Your task to perform on an android device: Open CNN.com Image 0: 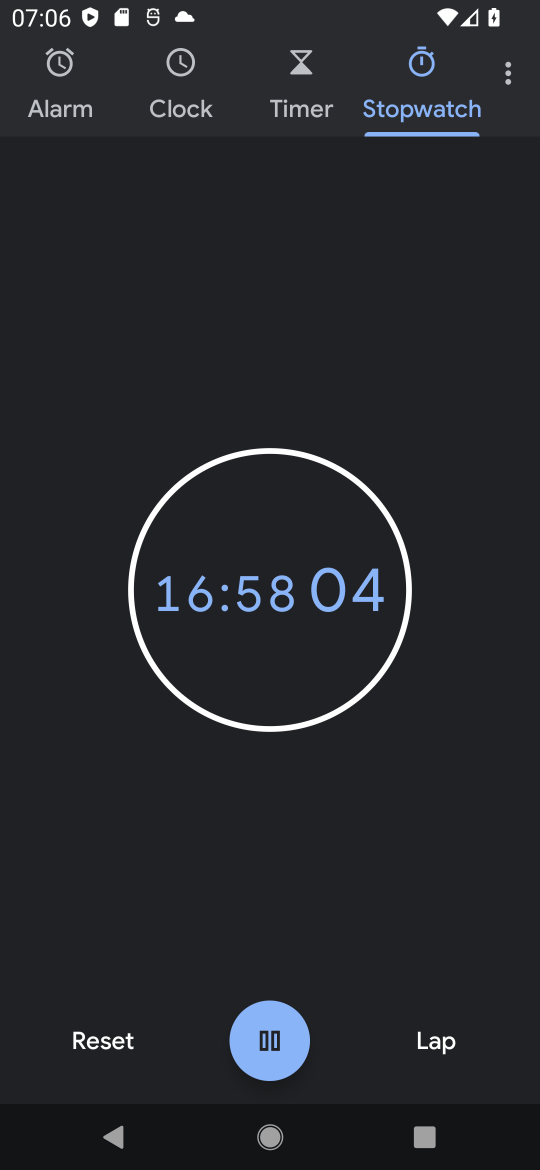
Step 0: press home button
Your task to perform on an android device: Open CNN.com Image 1: 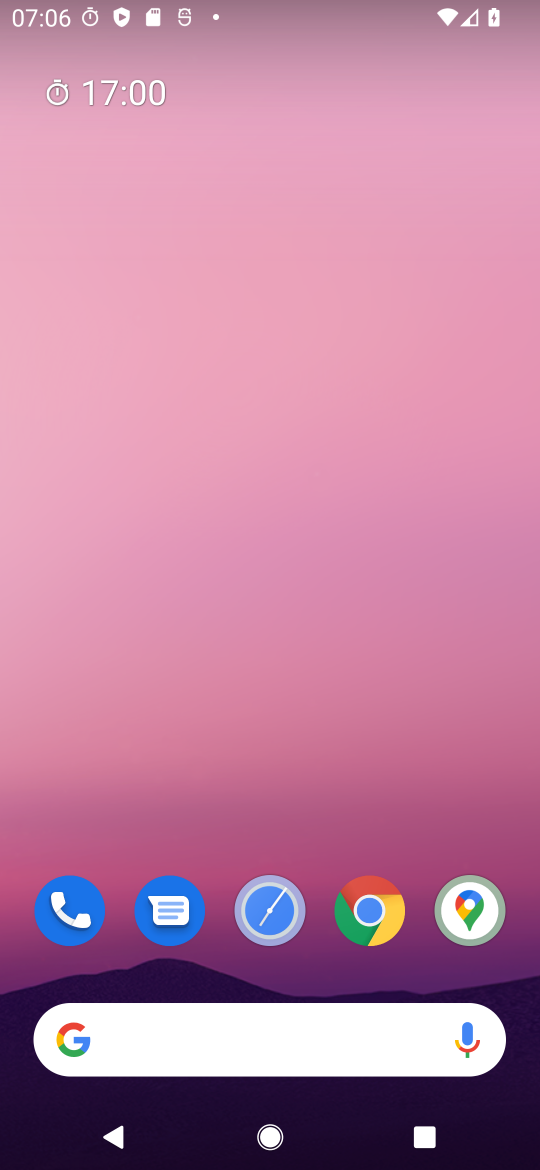
Step 1: drag from (197, 1065) to (290, 108)
Your task to perform on an android device: Open CNN.com Image 2: 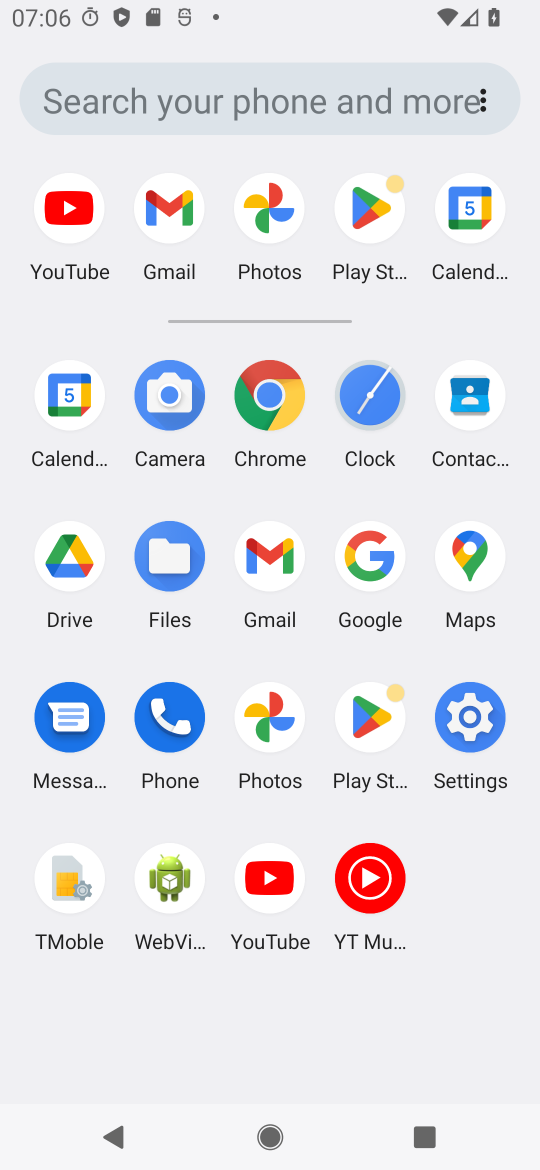
Step 2: click (275, 368)
Your task to perform on an android device: Open CNN.com Image 3: 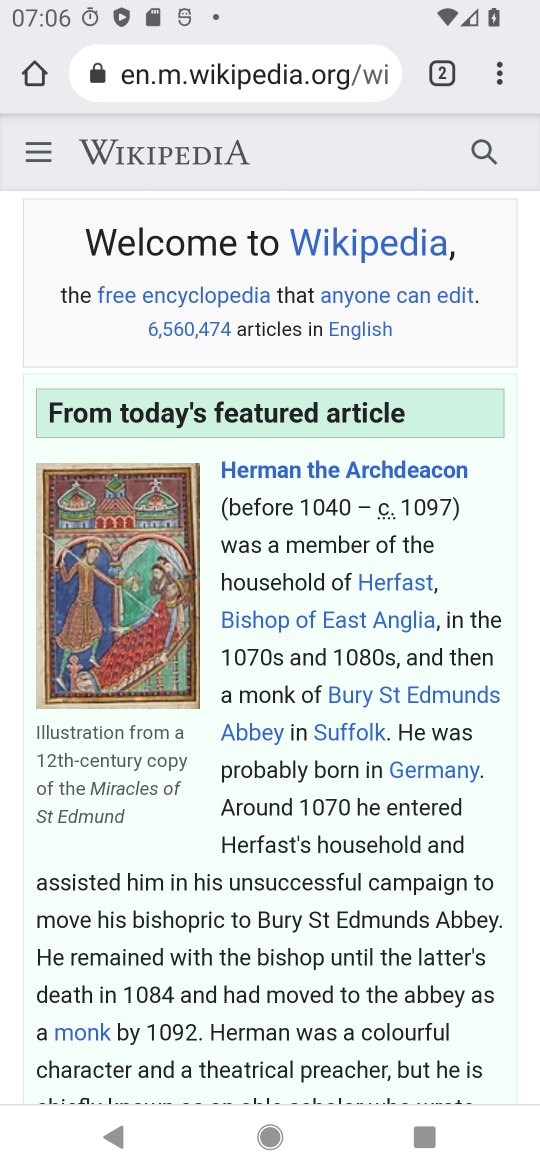
Step 3: click (293, 78)
Your task to perform on an android device: Open CNN.com Image 4: 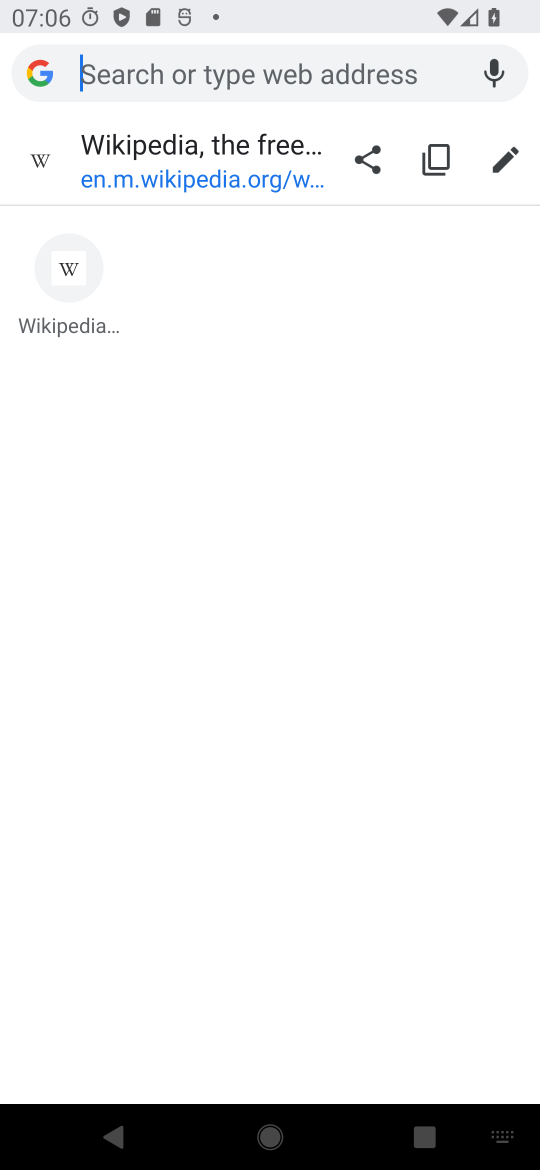
Step 4: type "cnn.com"
Your task to perform on an android device: Open CNN.com Image 5: 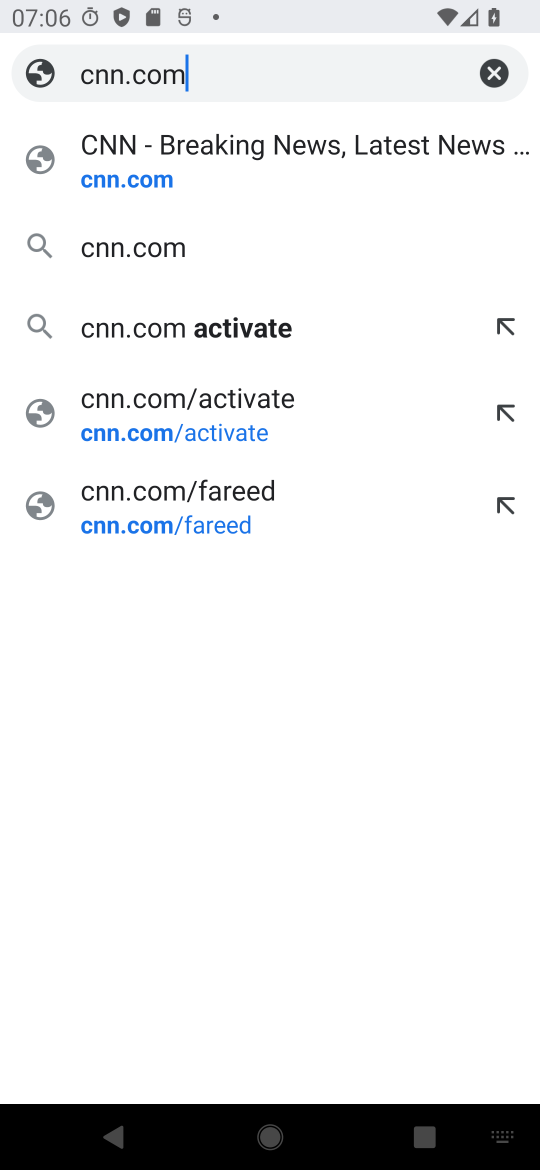
Step 5: click (430, 194)
Your task to perform on an android device: Open CNN.com Image 6: 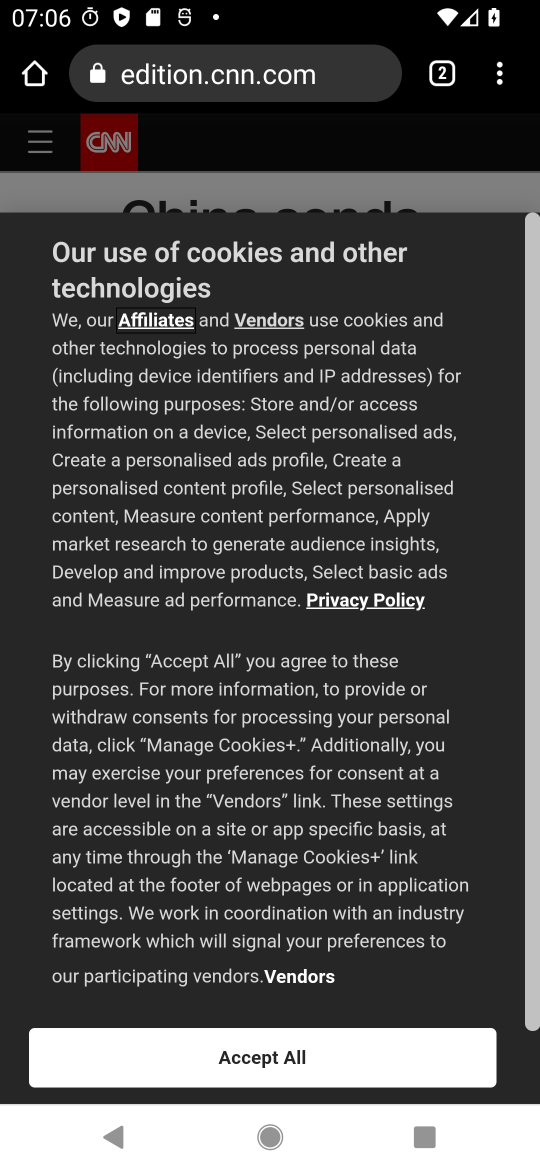
Step 6: task complete